Your task to perform on an android device: Open the calendar app, open the side menu, and click the "Day" option Image 0: 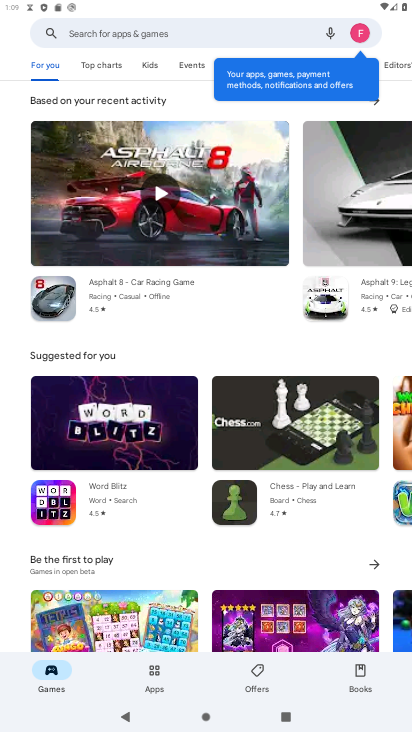
Step 0: press home button
Your task to perform on an android device: Open the calendar app, open the side menu, and click the "Day" option Image 1: 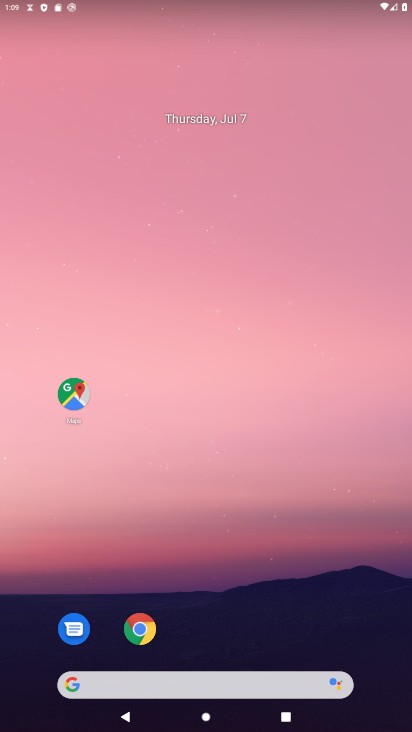
Step 1: drag from (237, 529) to (243, 171)
Your task to perform on an android device: Open the calendar app, open the side menu, and click the "Day" option Image 2: 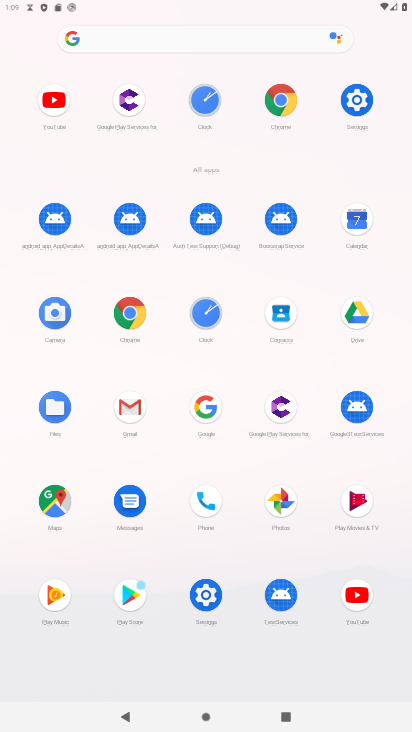
Step 2: click (365, 216)
Your task to perform on an android device: Open the calendar app, open the side menu, and click the "Day" option Image 3: 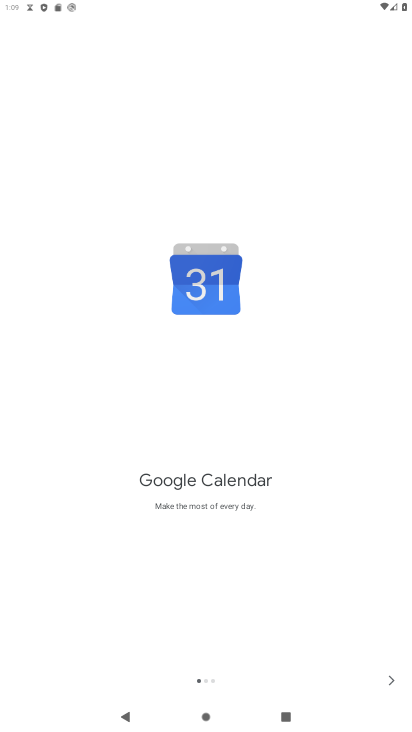
Step 3: click (386, 675)
Your task to perform on an android device: Open the calendar app, open the side menu, and click the "Day" option Image 4: 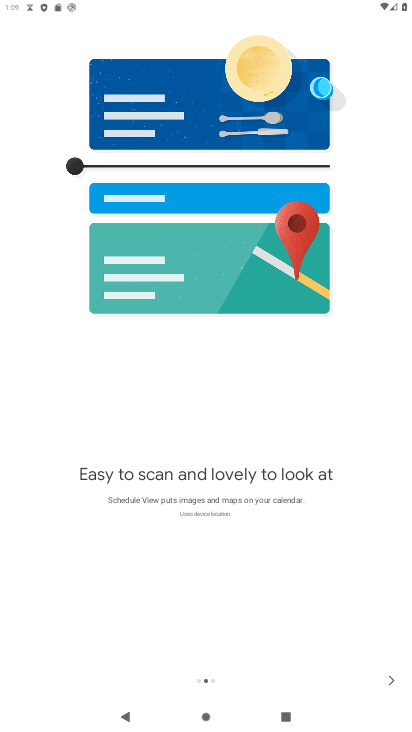
Step 4: click (397, 669)
Your task to perform on an android device: Open the calendar app, open the side menu, and click the "Day" option Image 5: 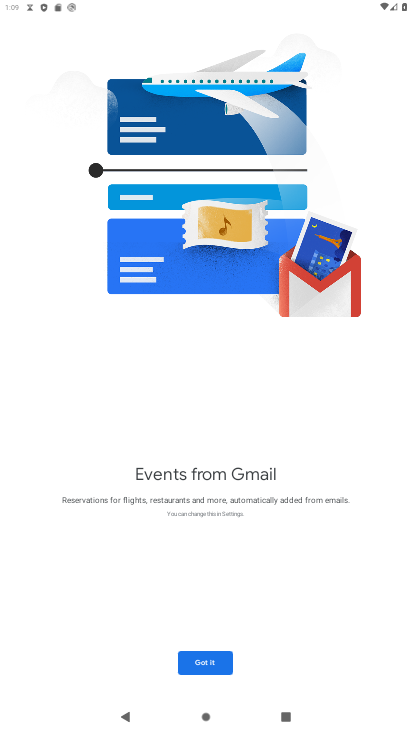
Step 5: click (183, 666)
Your task to perform on an android device: Open the calendar app, open the side menu, and click the "Day" option Image 6: 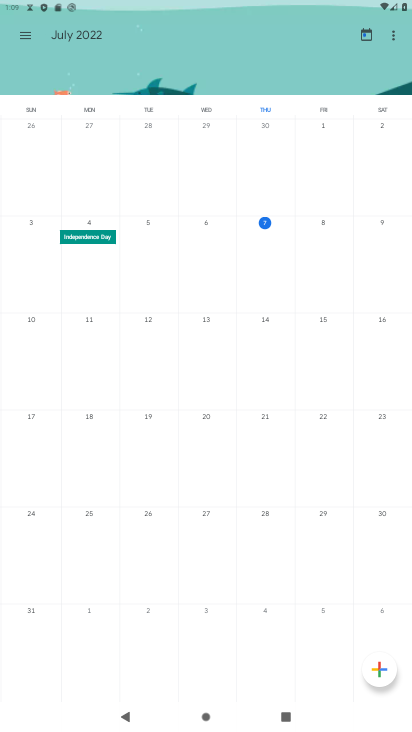
Step 6: click (27, 21)
Your task to perform on an android device: Open the calendar app, open the side menu, and click the "Day" option Image 7: 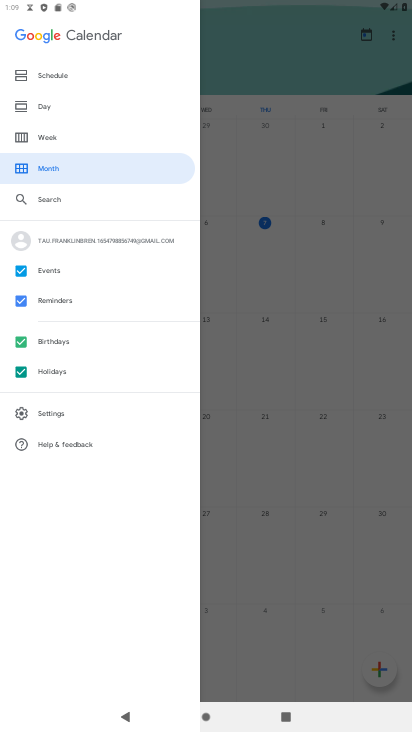
Step 7: click (63, 107)
Your task to perform on an android device: Open the calendar app, open the side menu, and click the "Day" option Image 8: 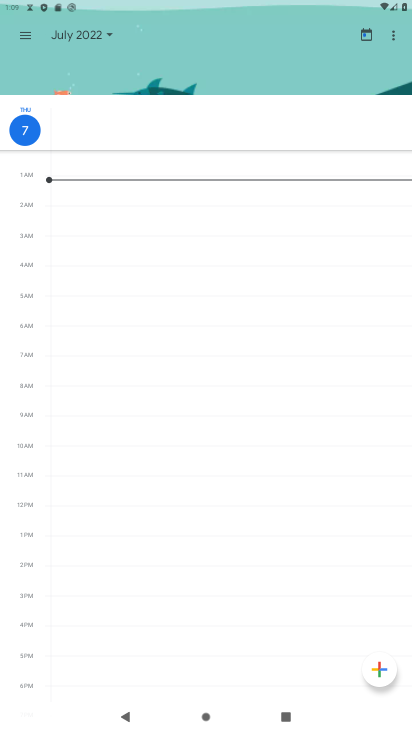
Step 8: task complete